Your task to perform on an android device: toggle airplane mode Image 0: 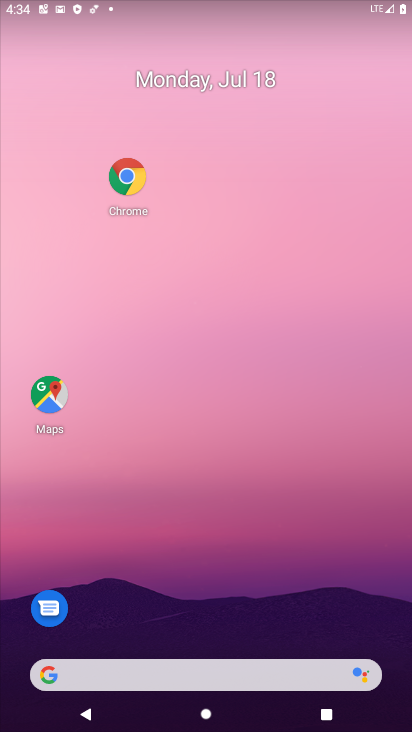
Step 0: drag from (243, 621) to (318, 66)
Your task to perform on an android device: toggle airplane mode Image 1: 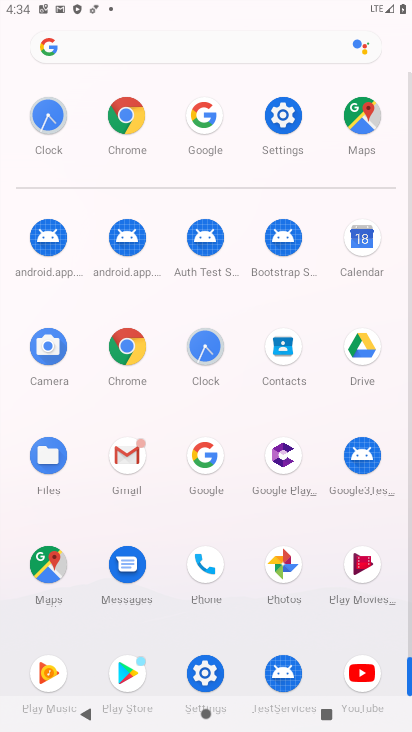
Step 1: click (273, 149)
Your task to perform on an android device: toggle airplane mode Image 2: 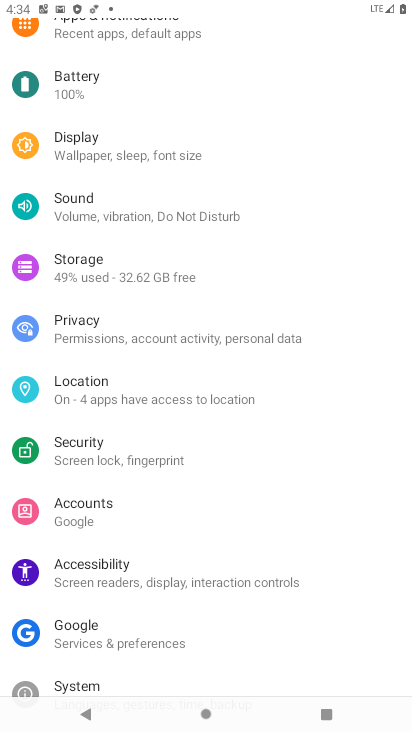
Step 2: drag from (140, 365) to (113, 726)
Your task to perform on an android device: toggle airplane mode Image 3: 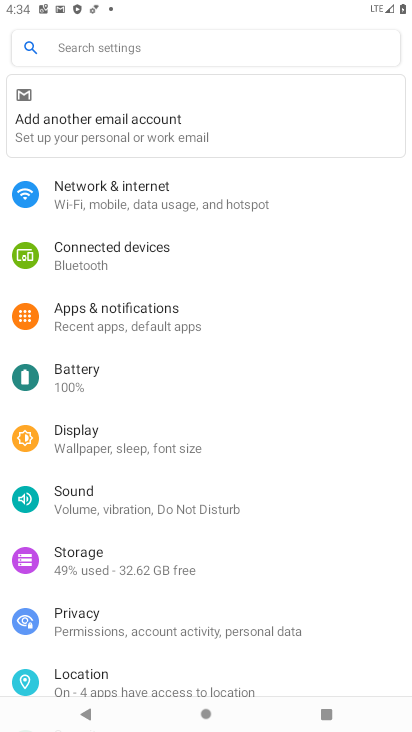
Step 3: click (206, 196)
Your task to perform on an android device: toggle airplane mode Image 4: 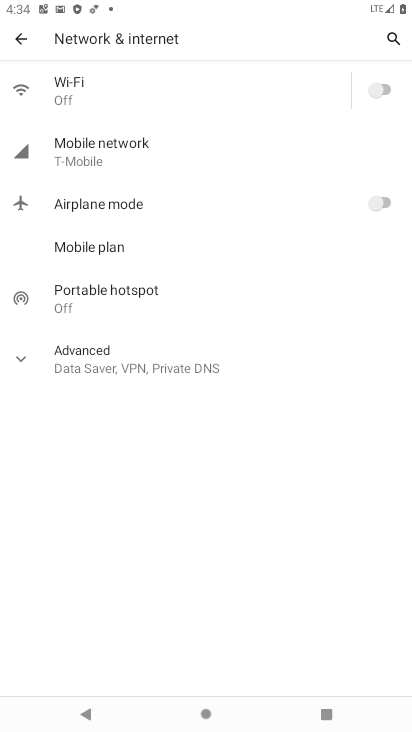
Step 4: click (230, 202)
Your task to perform on an android device: toggle airplane mode Image 5: 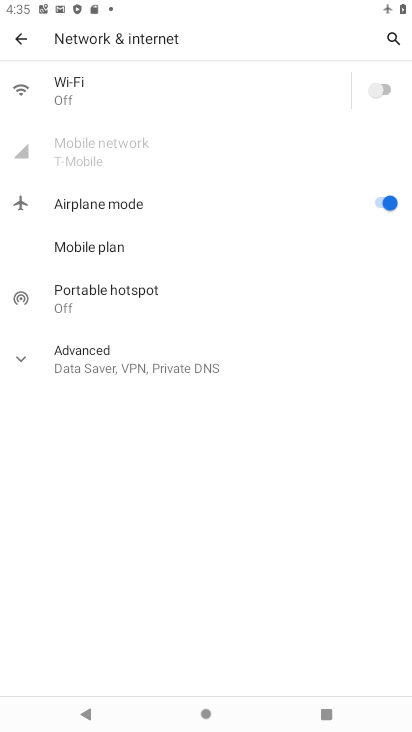
Step 5: task complete